Your task to perform on an android device: Look up the best rated gaming chair on Best Buy Image 0: 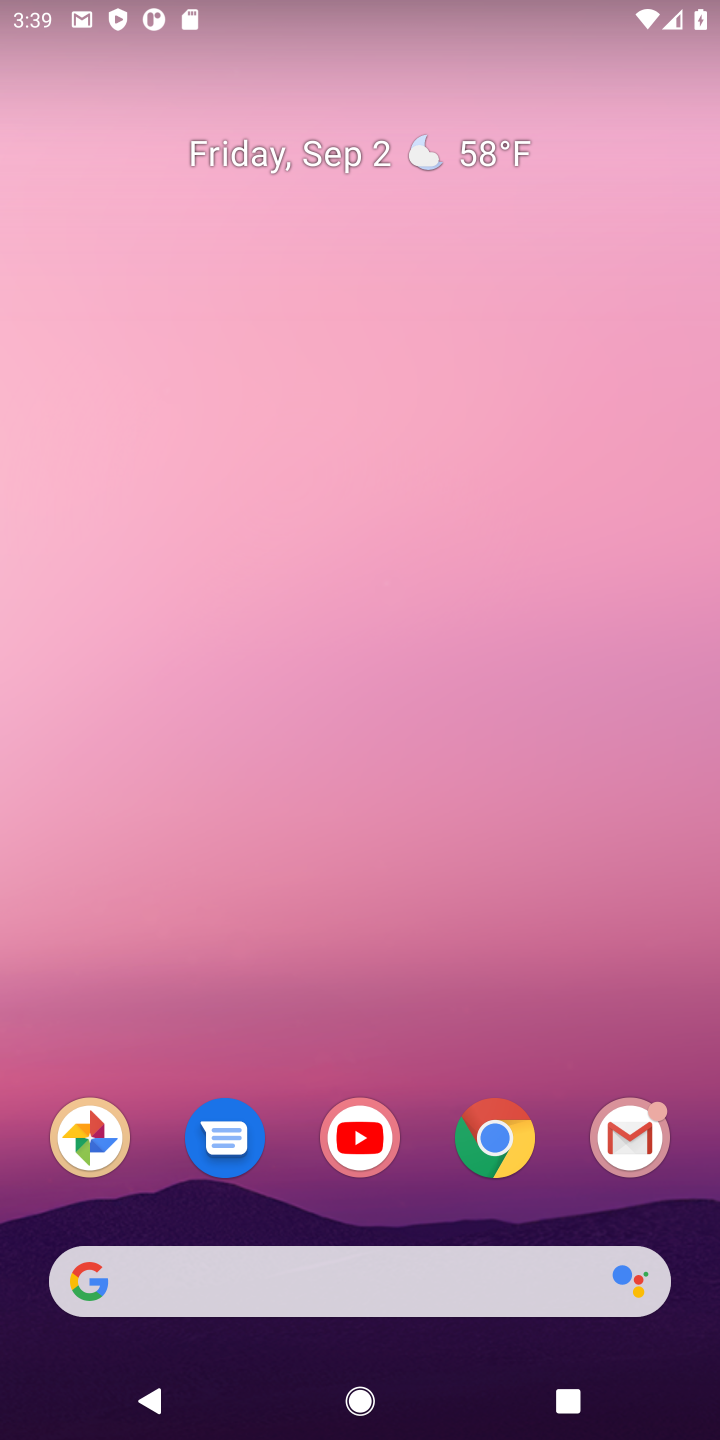
Step 0: click (489, 1116)
Your task to perform on an android device: Look up the best rated gaming chair on Best Buy Image 1: 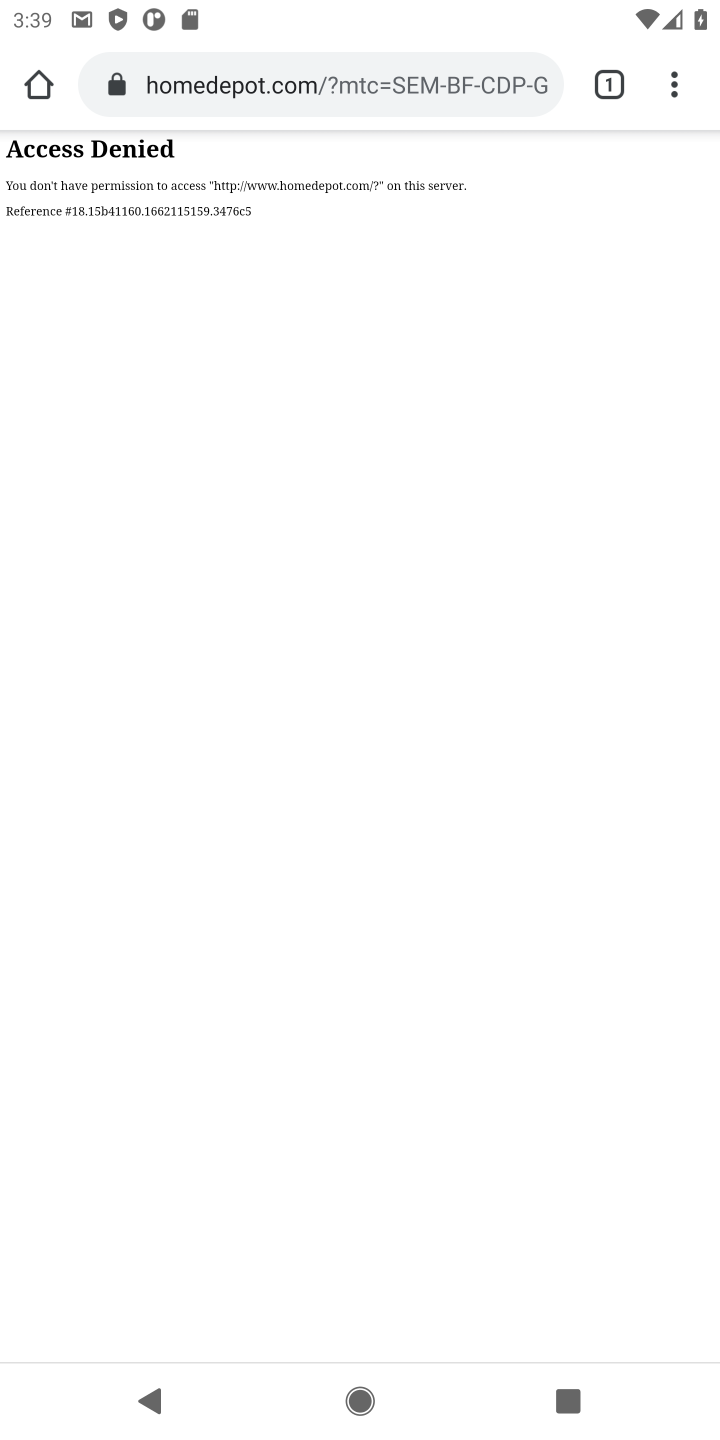
Step 1: click (285, 64)
Your task to perform on an android device: Look up the best rated gaming chair on Best Buy Image 2: 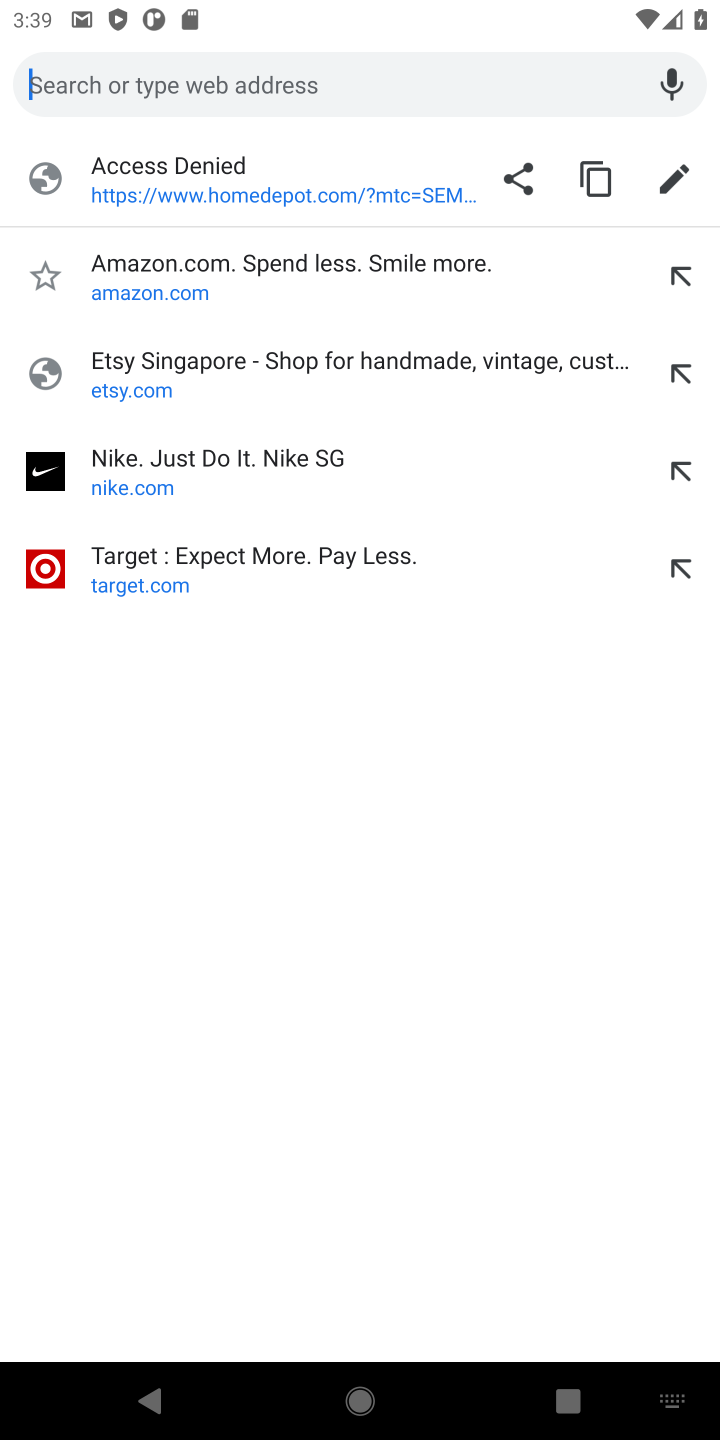
Step 2: type "best buy"
Your task to perform on an android device: Look up the best rated gaming chair on Best Buy Image 3: 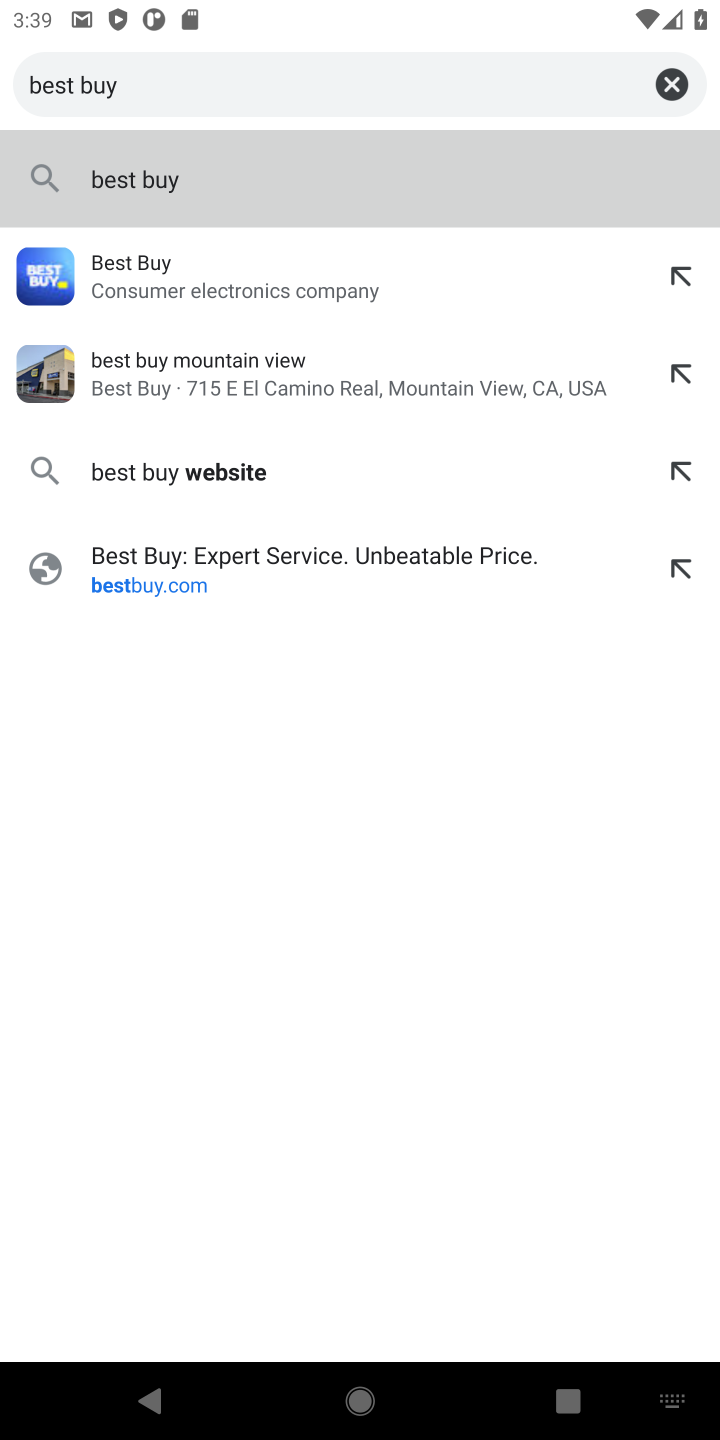
Step 3: click (265, 268)
Your task to perform on an android device: Look up the best rated gaming chair on Best Buy Image 4: 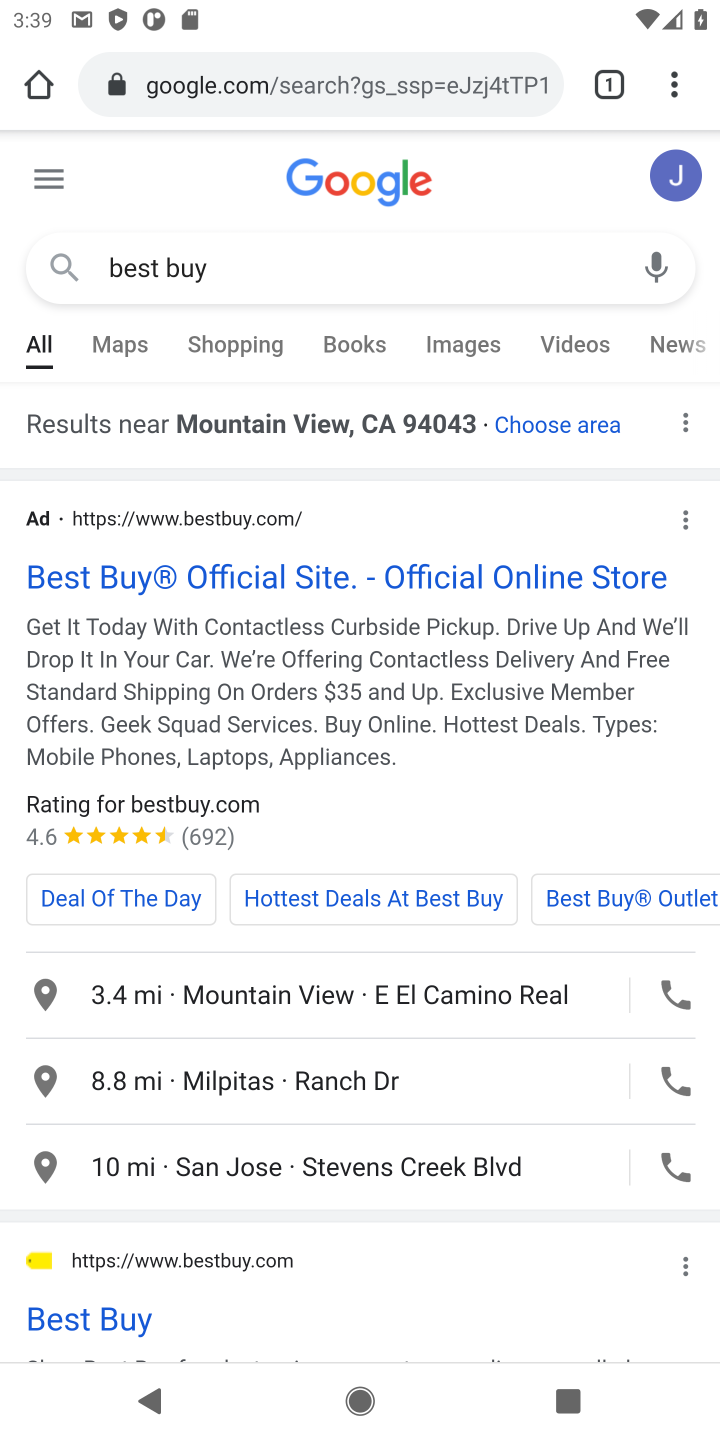
Step 4: click (330, 569)
Your task to perform on an android device: Look up the best rated gaming chair on Best Buy Image 5: 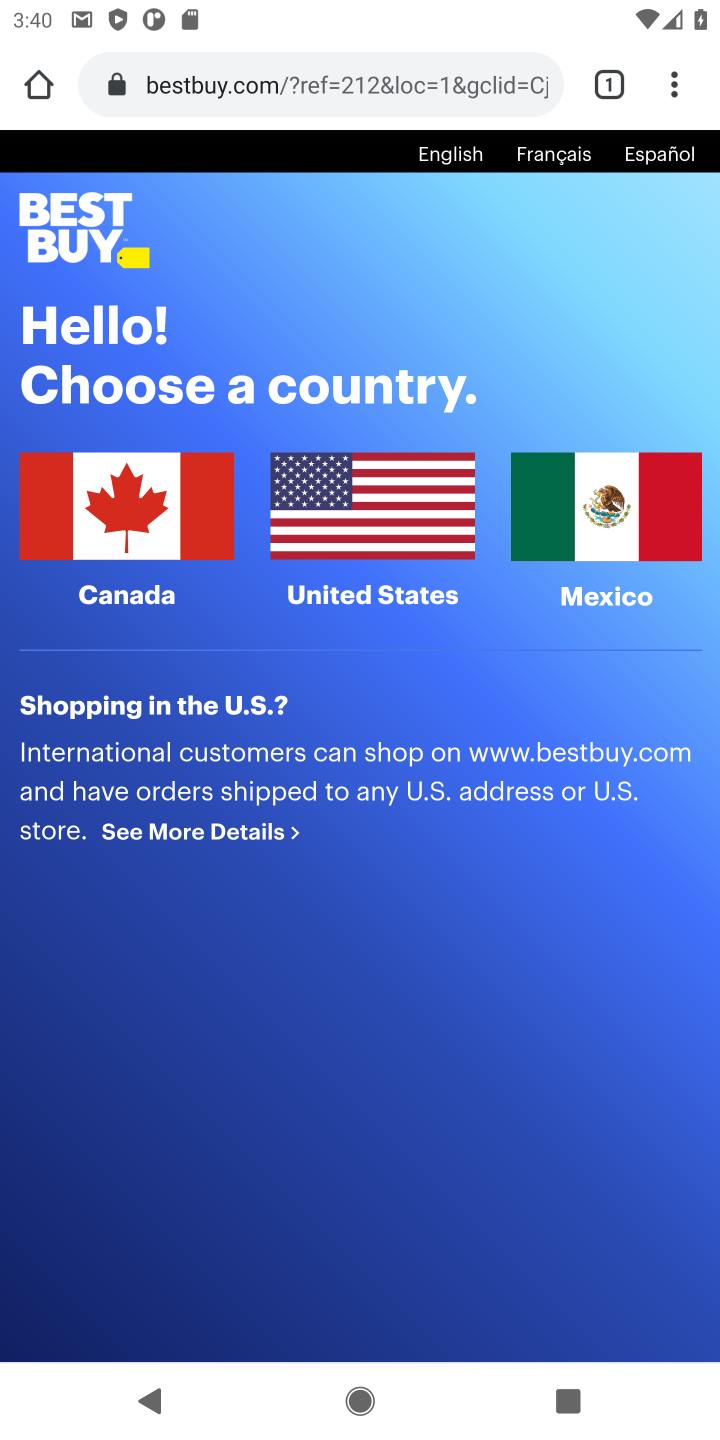
Step 5: click (455, 158)
Your task to perform on an android device: Look up the best rated gaming chair on Best Buy Image 6: 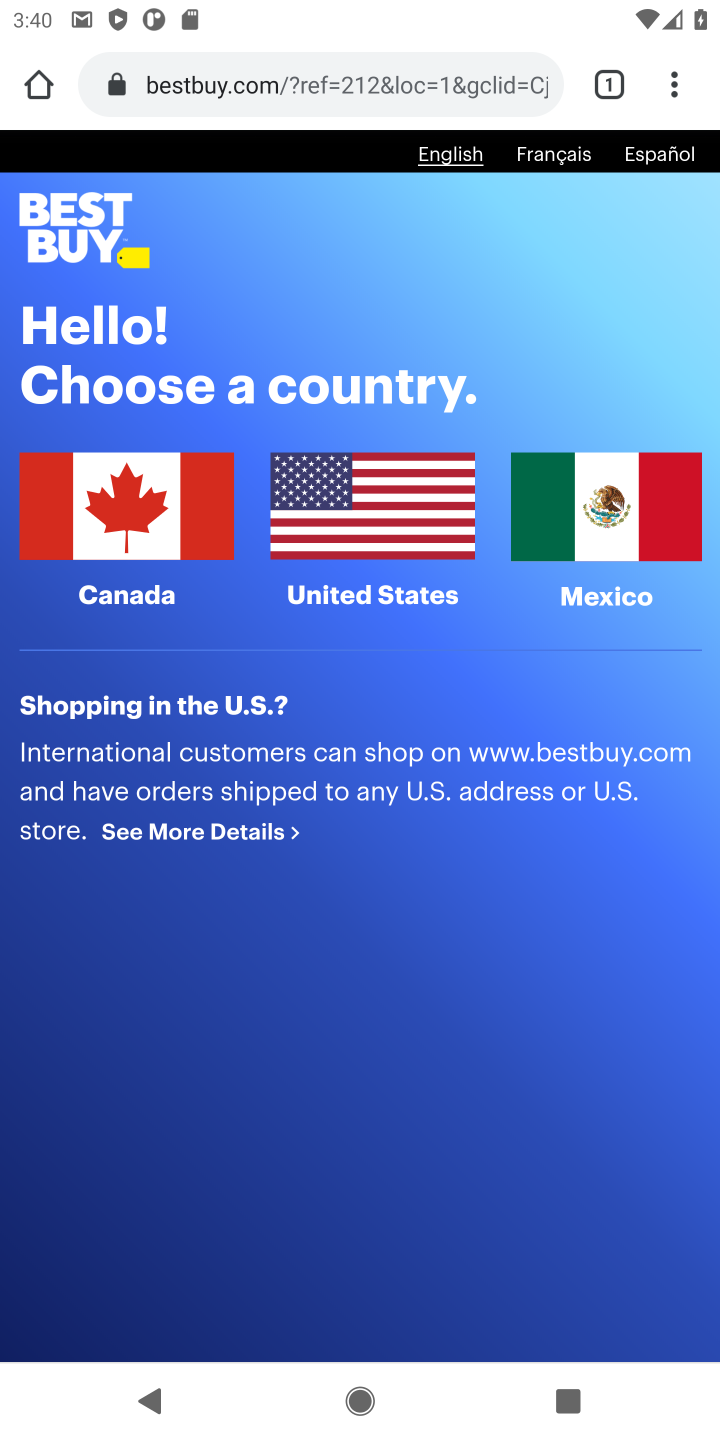
Step 6: click (403, 519)
Your task to perform on an android device: Look up the best rated gaming chair on Best Buy Image 7: 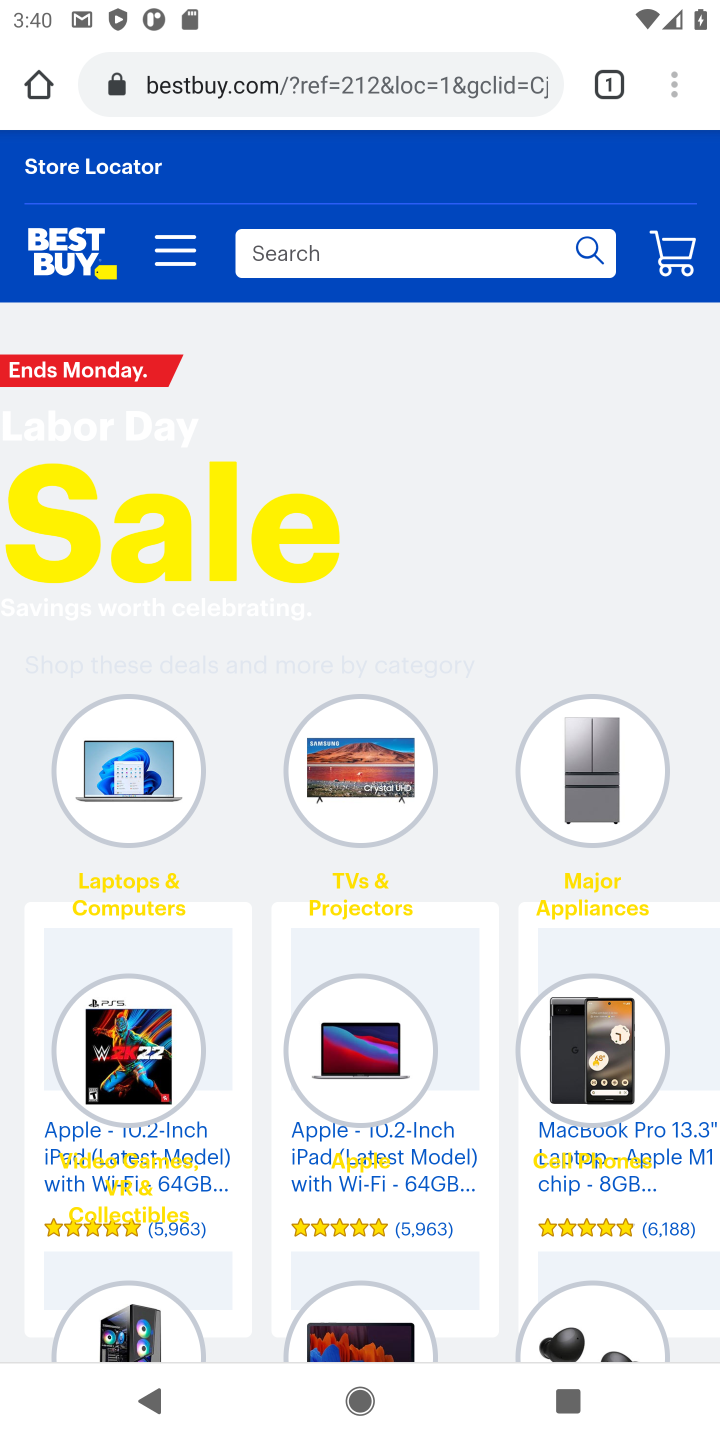
Step 7: click (502, 254)
Your task to perform on an android device: Look up the best rated gaming chair on Best Buy Image 8: 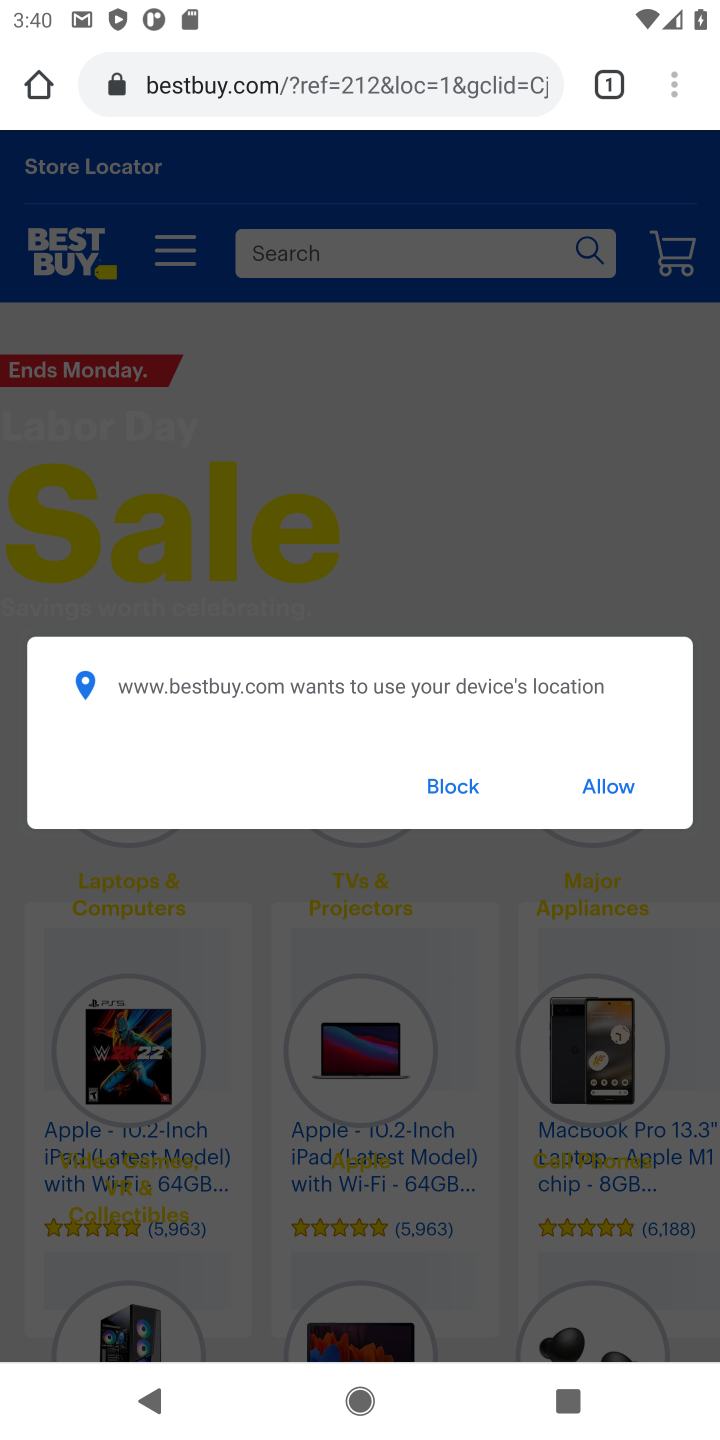
Step 8: click (467, 786)
Your task to perform on an android device: Look up the best rated gaming chair on Best Buy Image 9: 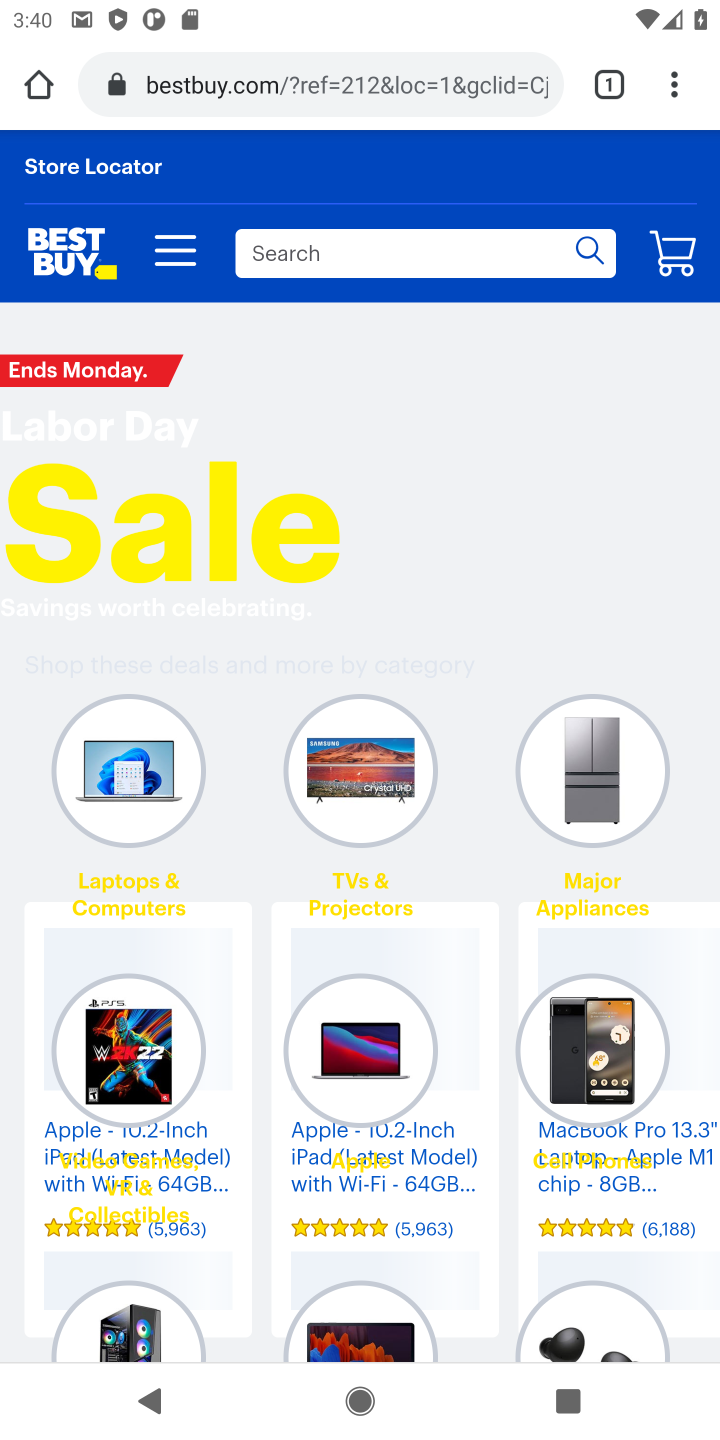
Step 9: click (369, 258)
Your task to perform on an android device: Look up the best rated gaming chair on Best Buy Image 10: 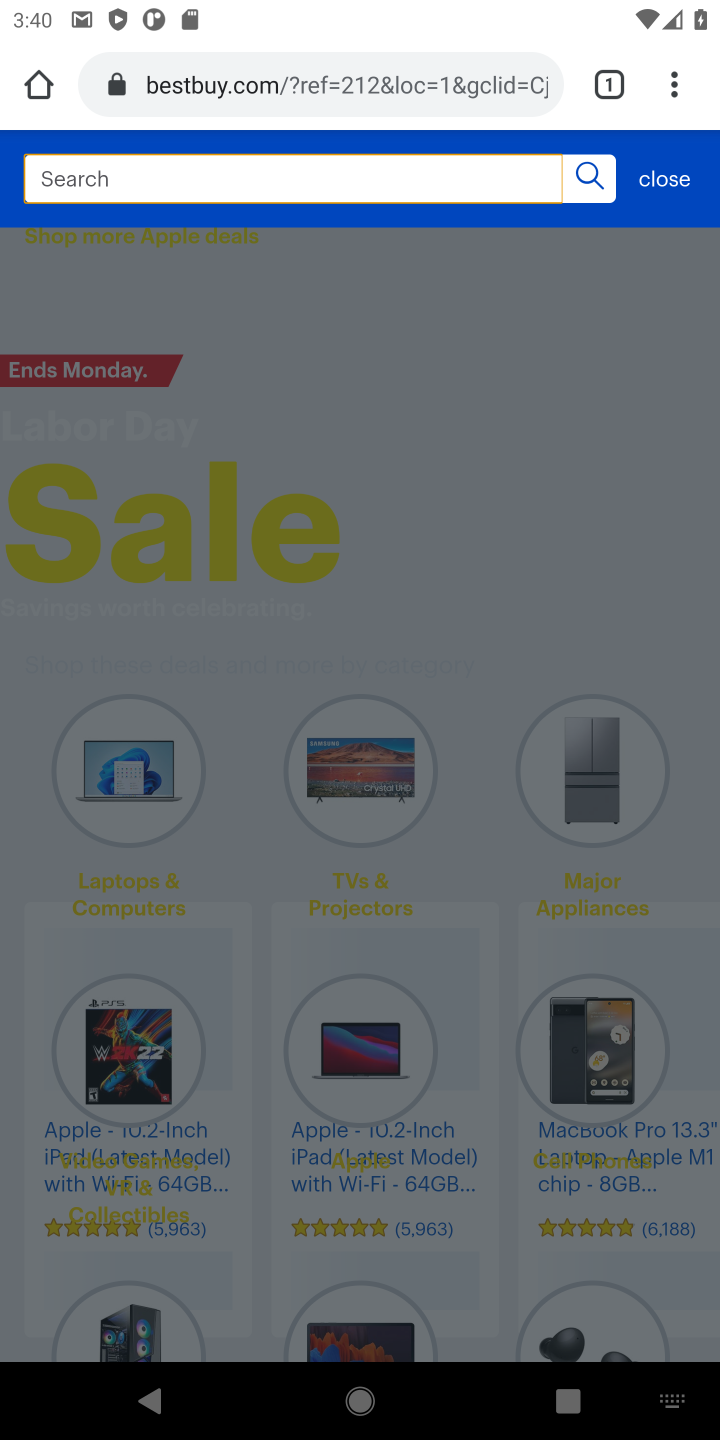
Step 10: type "gaming chair"
Your task to perform on an android device: Look up the best rated gaming chair on Best Buy Image 11: 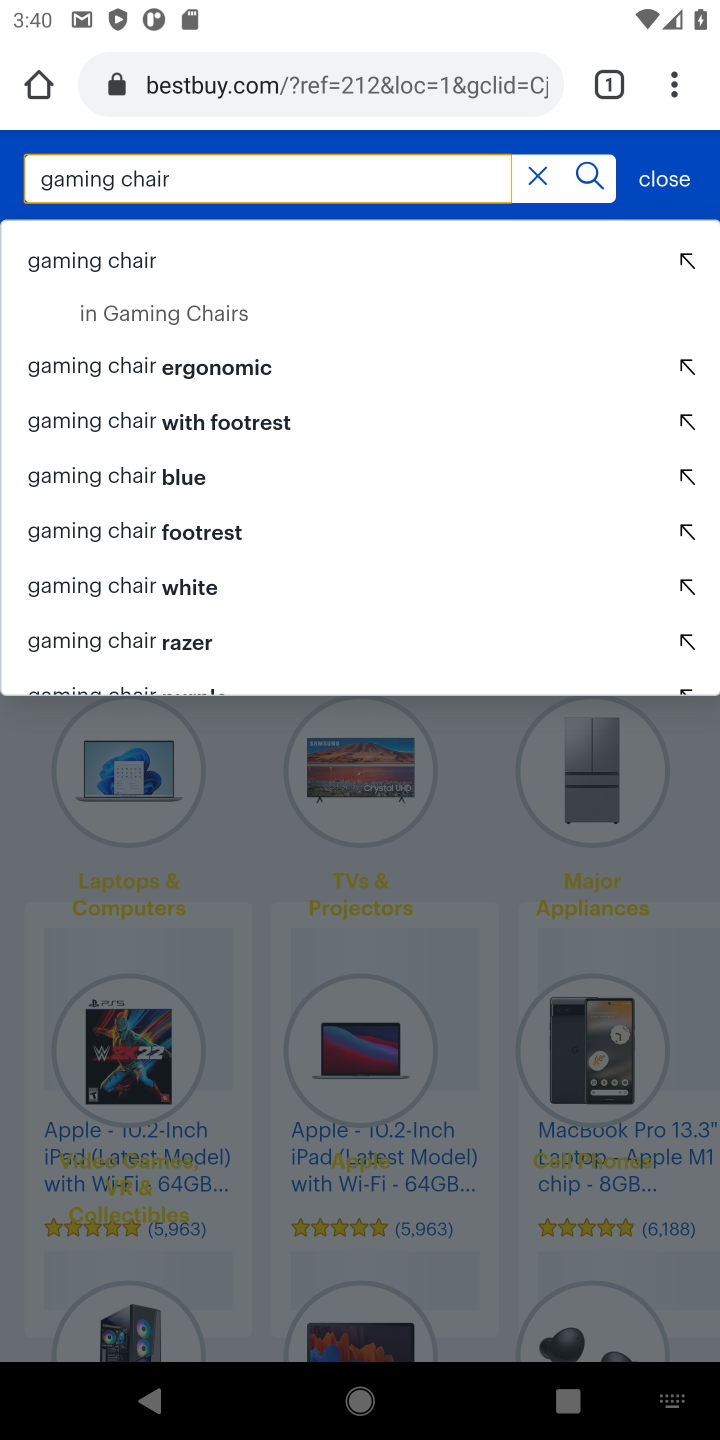
Step 11: click (320, 244)
Your task to perform on an android device: Look up the best rated gaming chair on Best Buy Image 12: 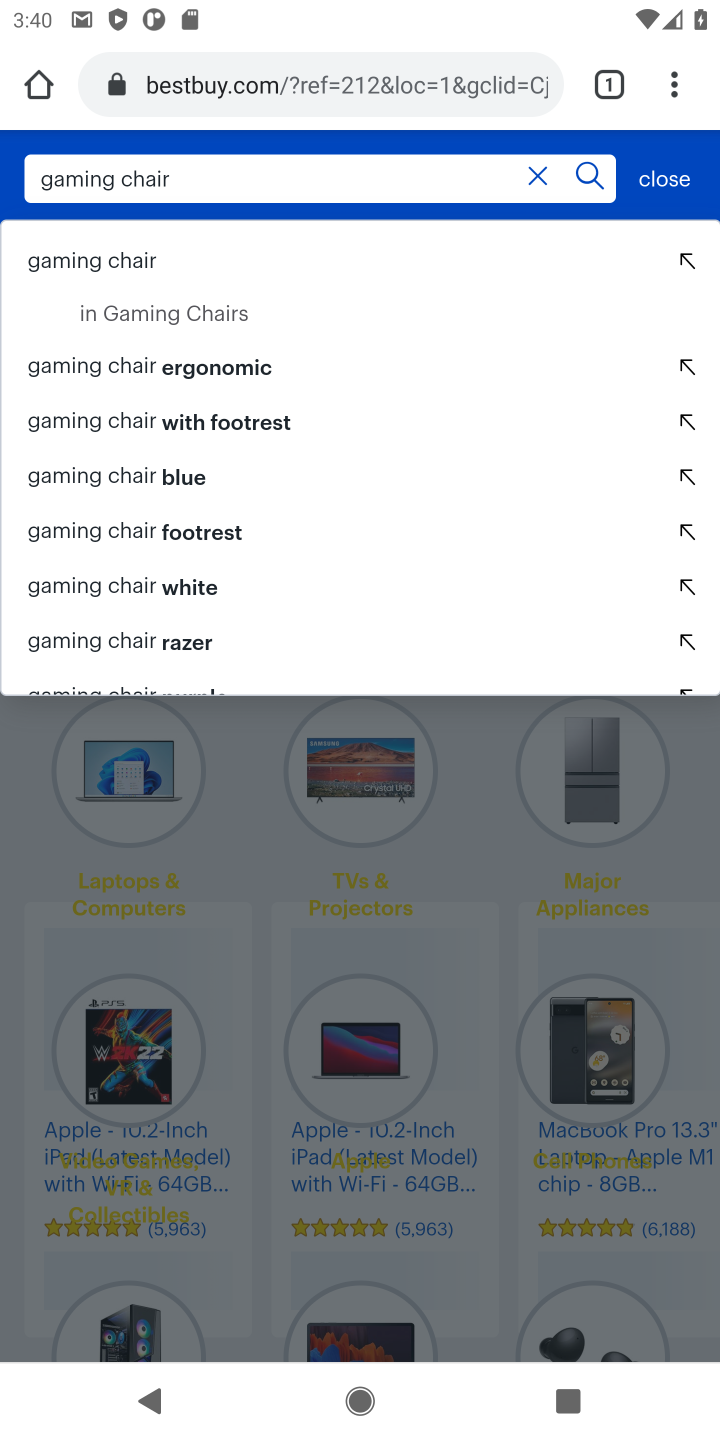
Step 12: click (168, 252)
Your task to perform on an android device: Look up the best rated gaming chair on Best Buy Image 13: 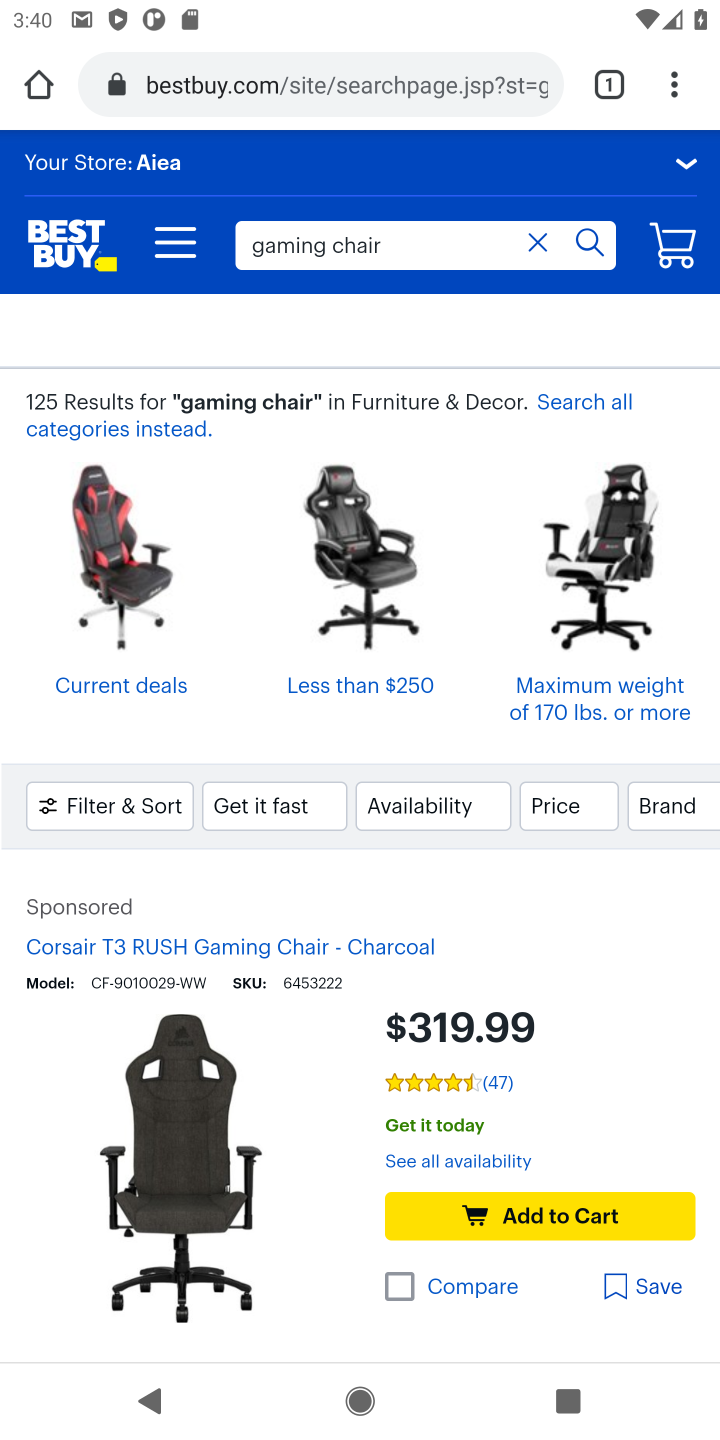
Step 13: drag from (379, 804) to (22, 826)
Your task to perform on an android device: Look up the best rated gaming chair on Best Buy Image 14: 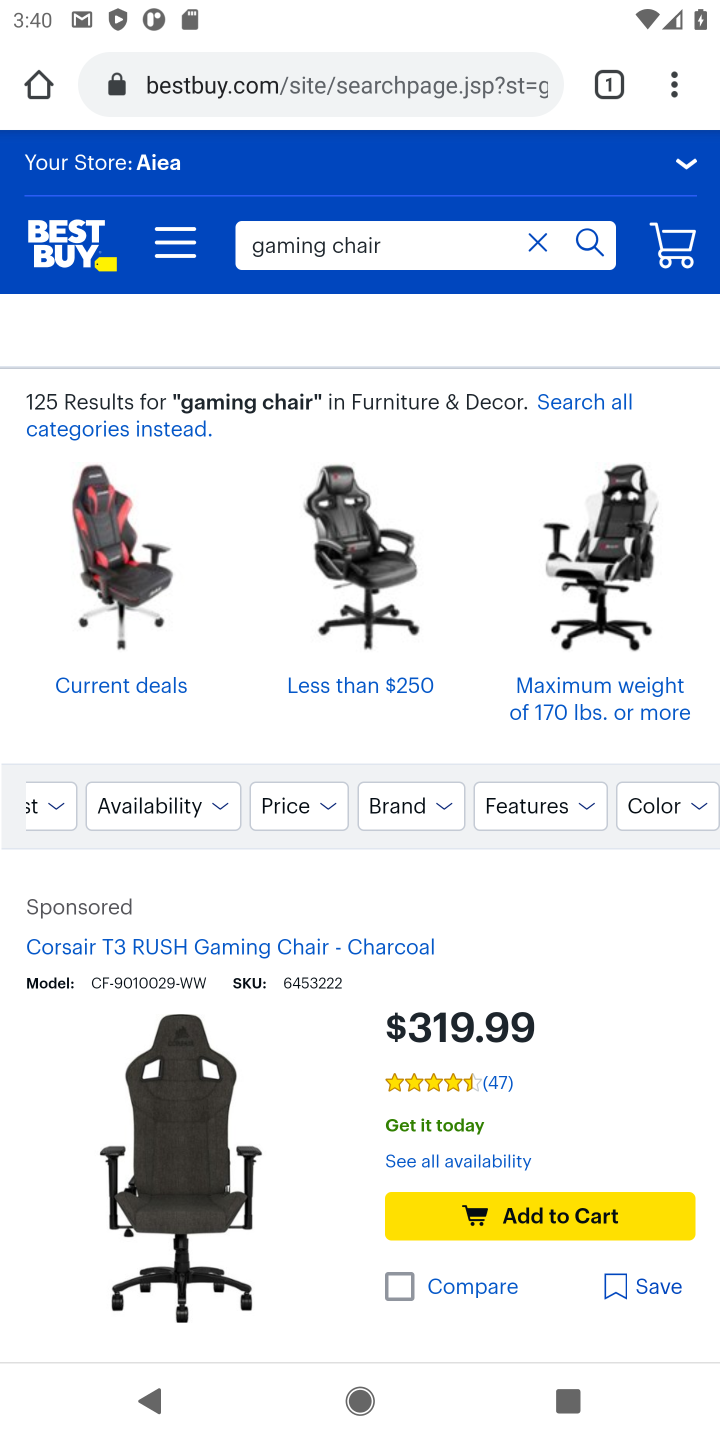
Step 14: drag from (546, 791) to (703, 777)
Your task to perform on an android device: Look up the best rated gaming chair on Best Buy Image 15: 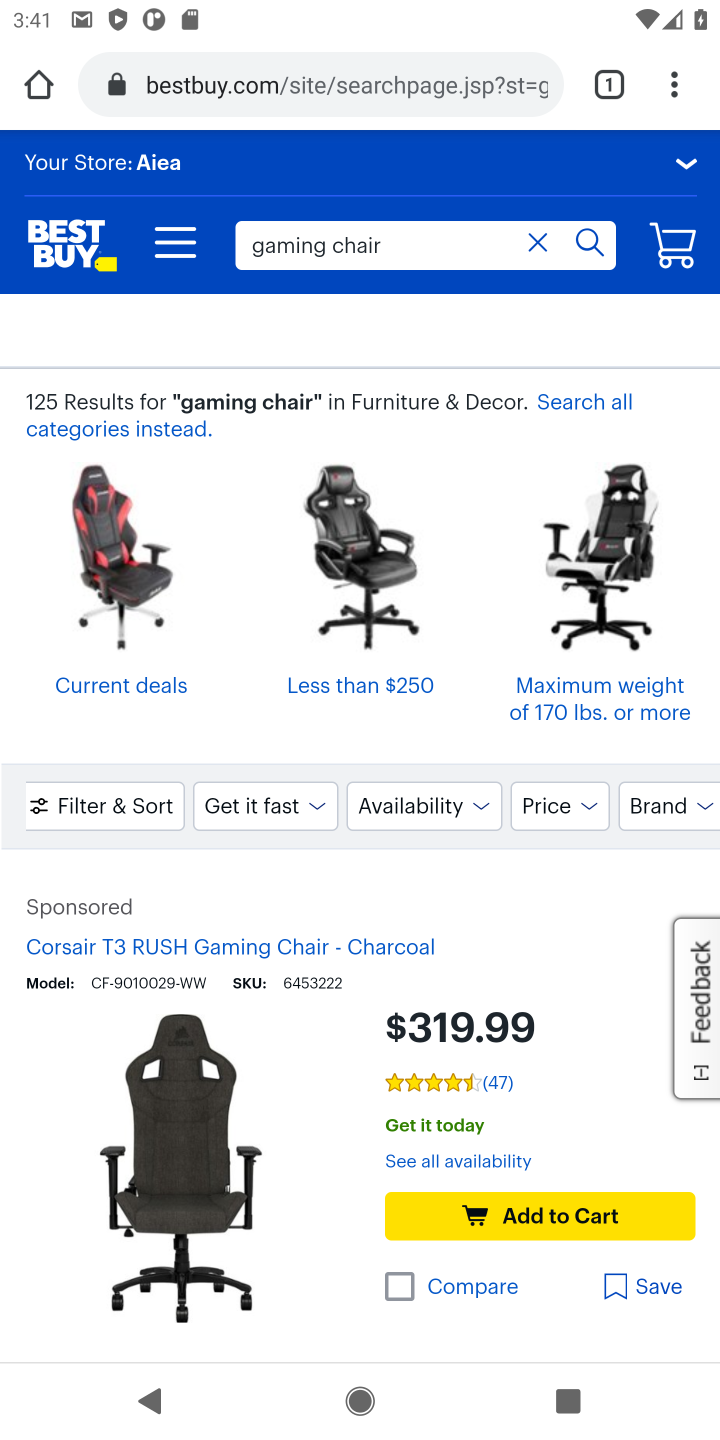
Step 15: click (119, 809)
Your task to perform on an android device: Look up the best rated gaming chair on Best Buy Image 16: 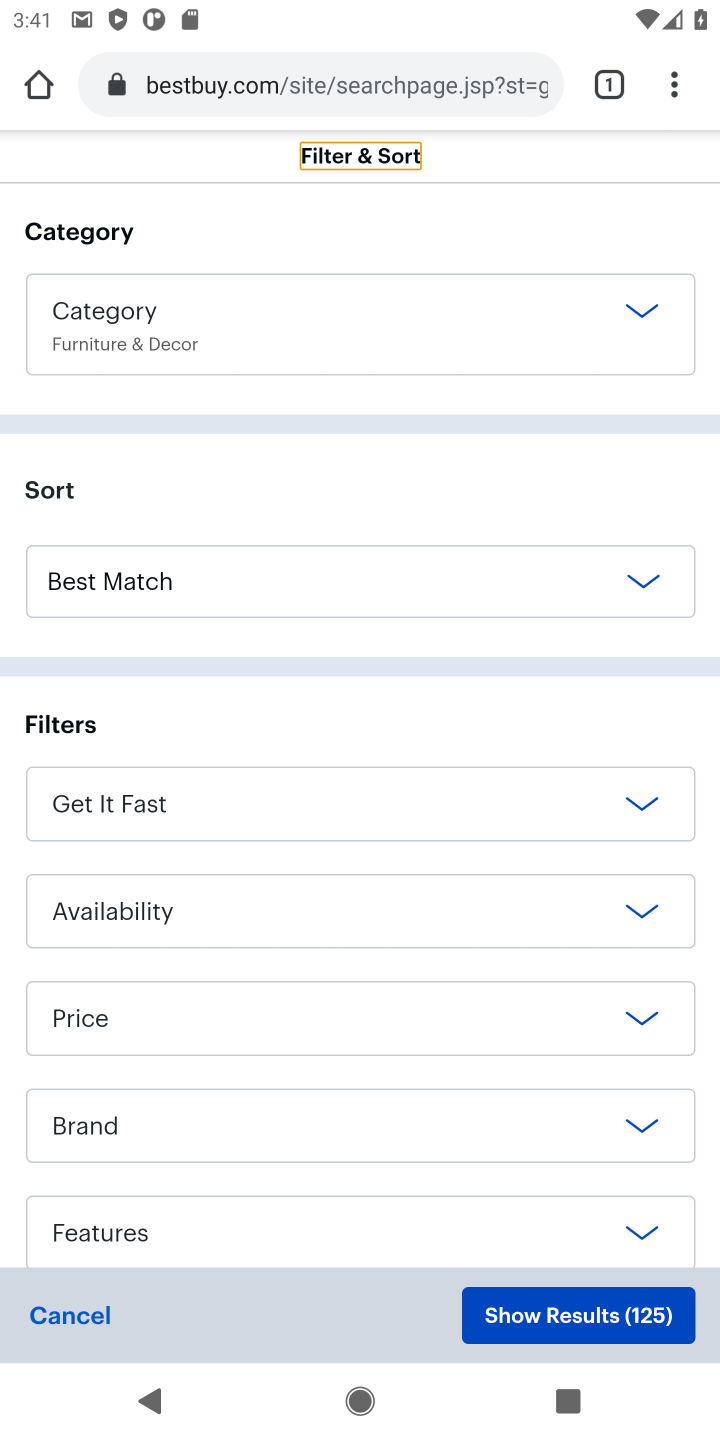
Step 16: drag from (573, 697) to (457, 246)
Your task to perform on an android device: Look up the best rated gaming chair on Best Buy Image 17: 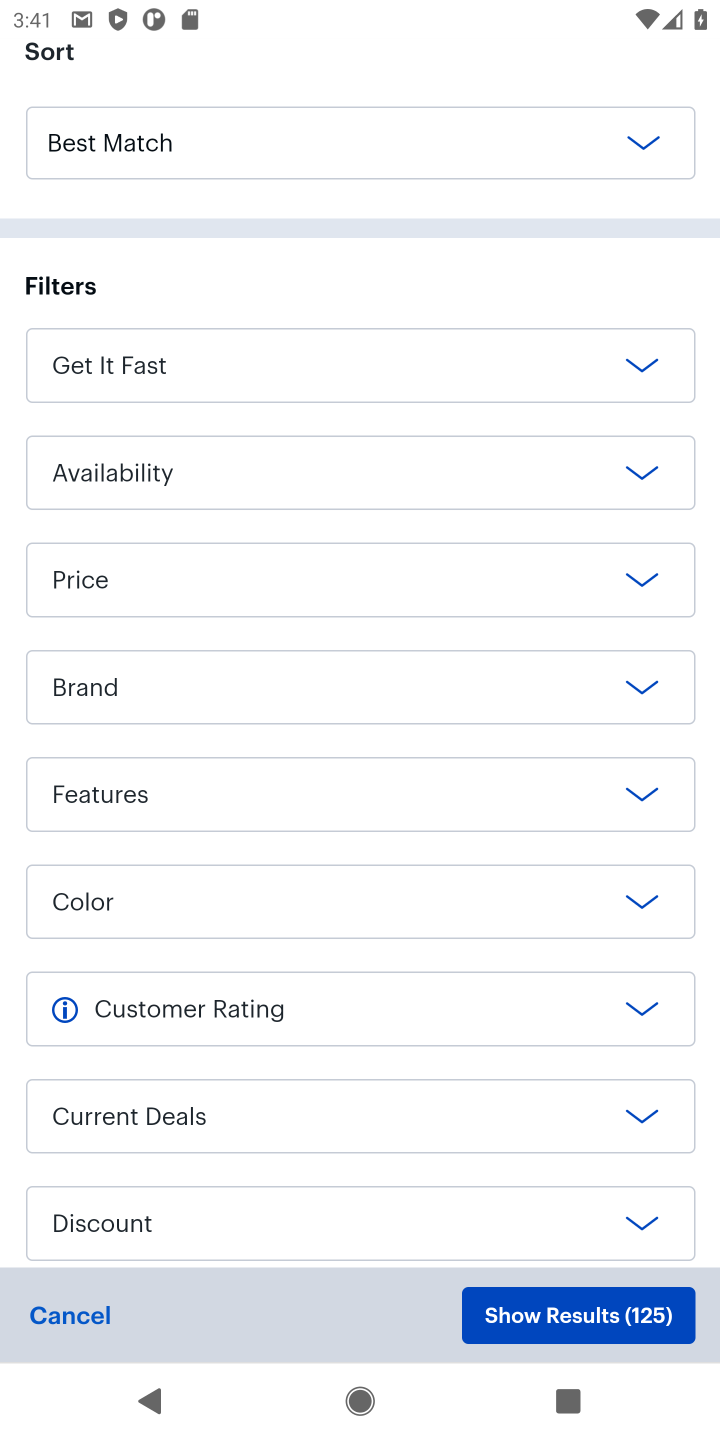
Step 17: click (537, 1005)
Your task to perform on an android device: Look up the best rated gaming chair on Best Buy Image 18: 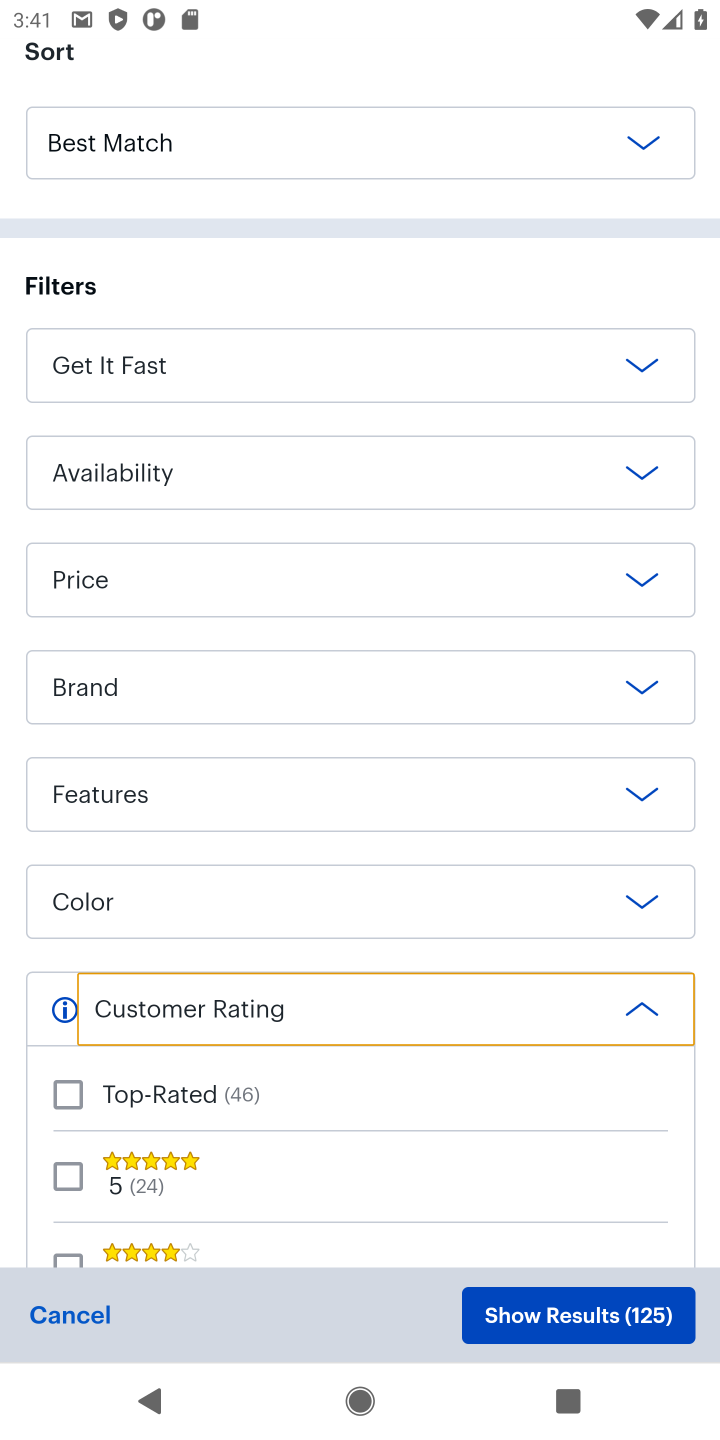
Step 18: click (63, 1091)
Your task to perform on an android device: Look up the best rated gaming chair on Best Buy Image 19: 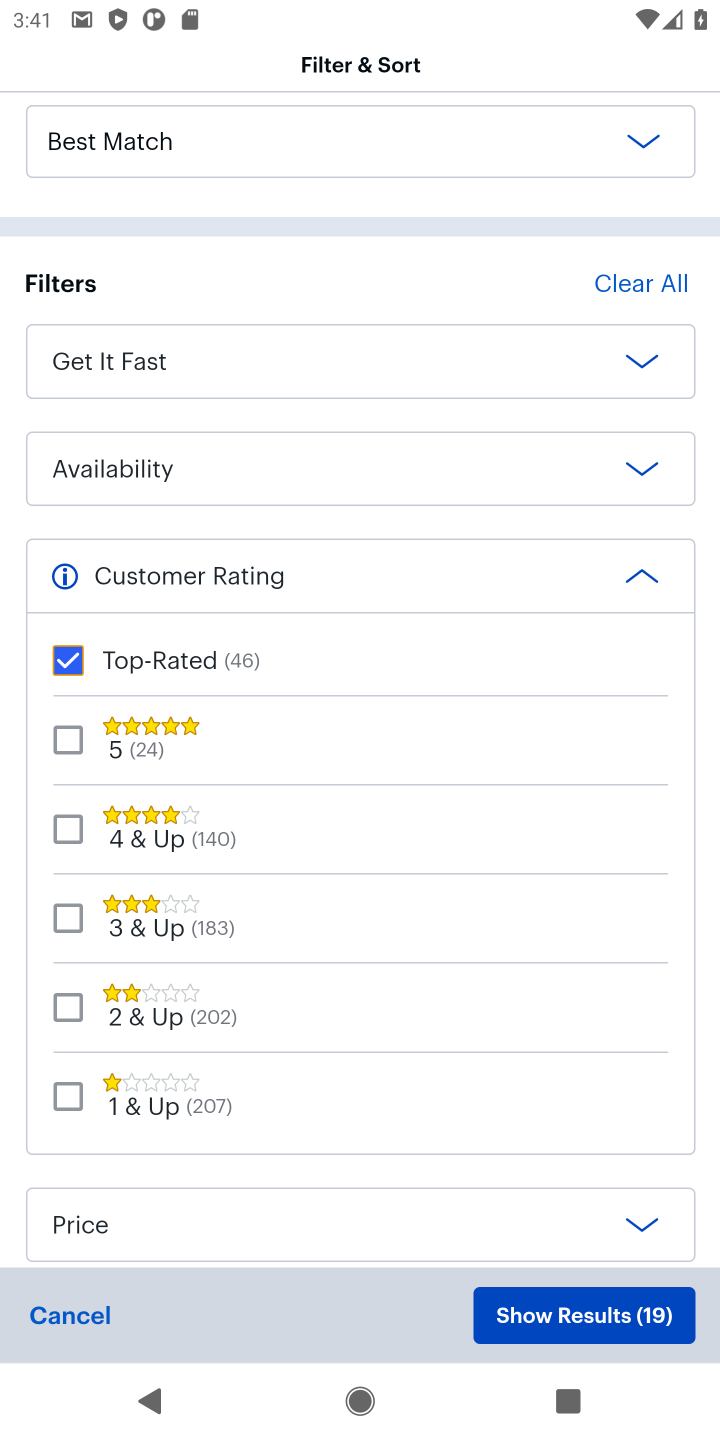
Step 19: click (558, 1312)
Your task to perform on an android device: Look up the best rated gaming chair on Best Buy Image 20: 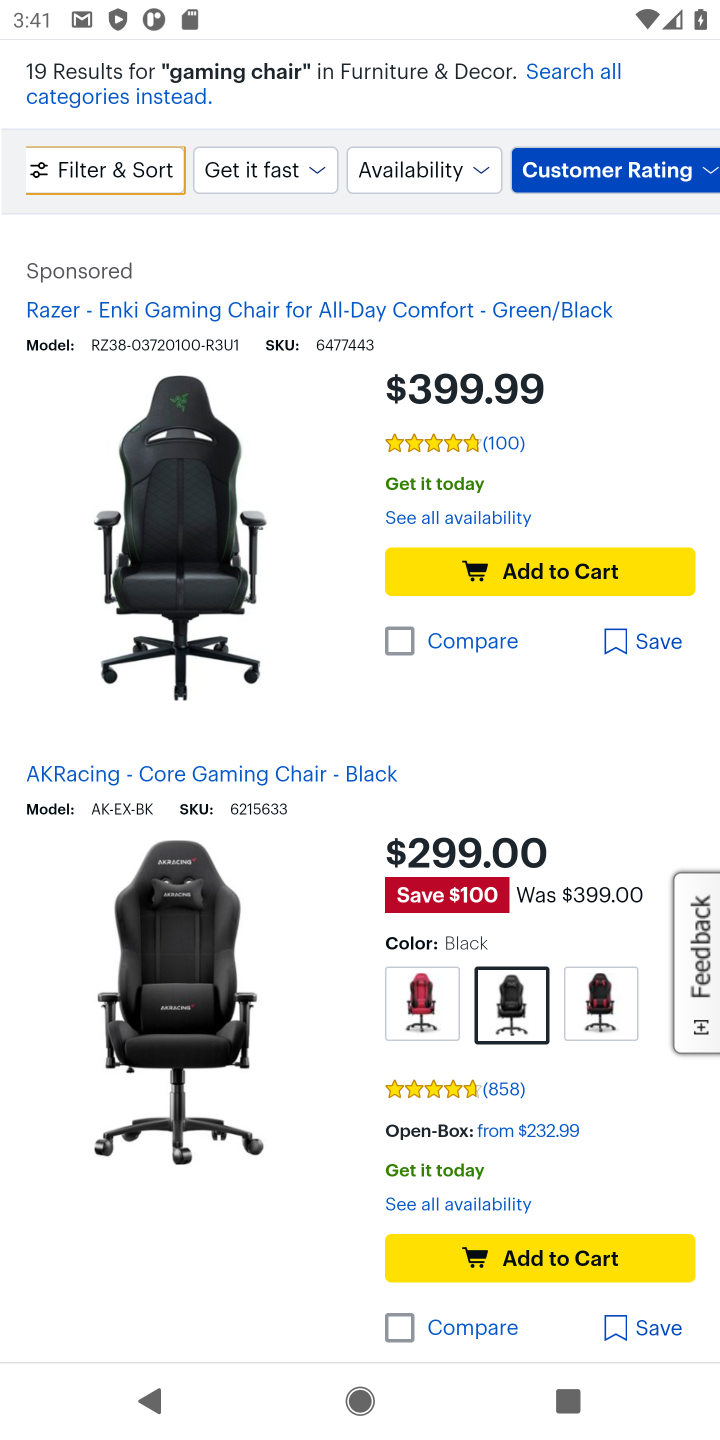
Step 20: task complete